Your task to perform on an android device: Open ESPN.com Image 0: 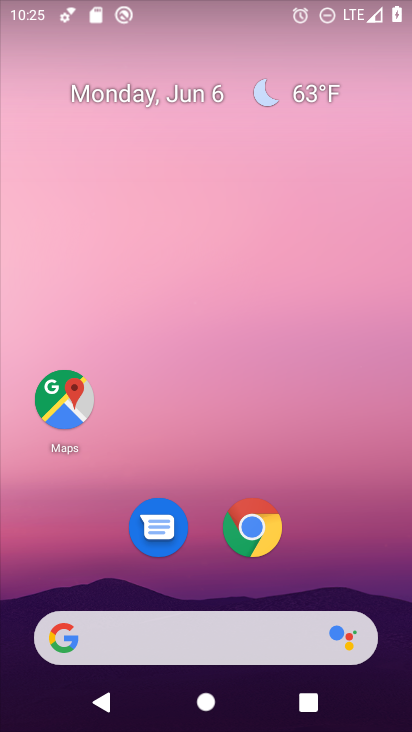
Step 0: drag from (356, 581) to (348, 100)
Your task to perform on an android device: Open ESPN.com Image 1: 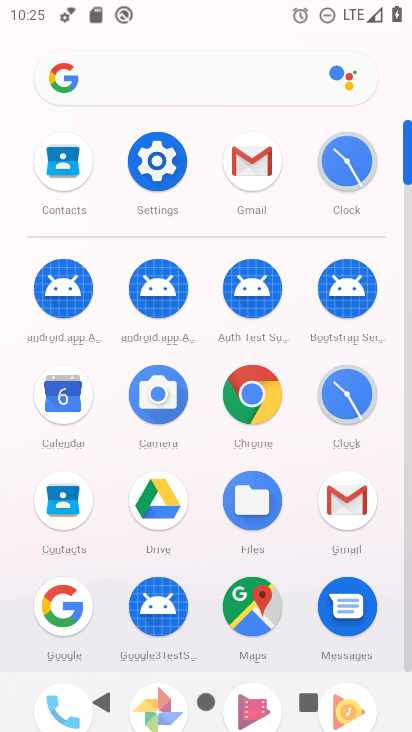
Step 1: click (249, 396)
Your task to perform on an android device: Open ESPN.com Image 2: 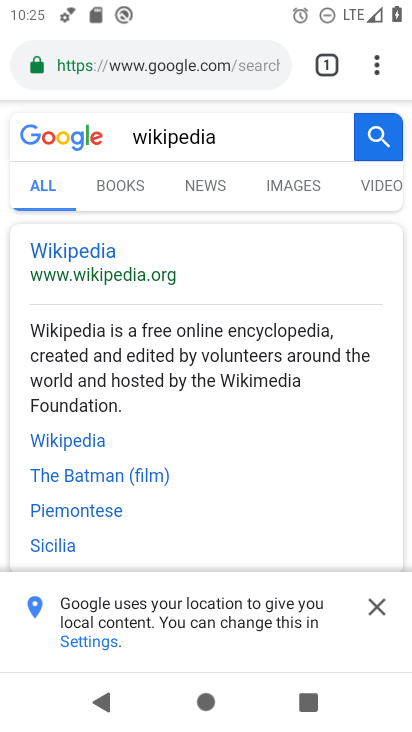
Step 2: click (212, 74)
Your task to perform on an android device: Open ESPN.com Image 3: 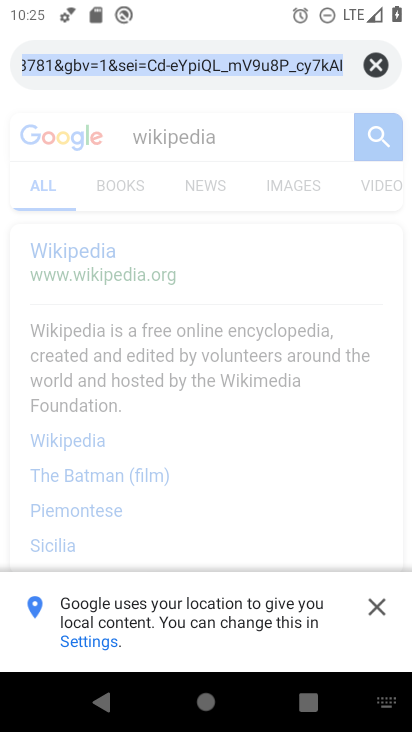
Step 3: click (373, 65)
Your task to perform on an android device: Open ESPN.com Image 4: 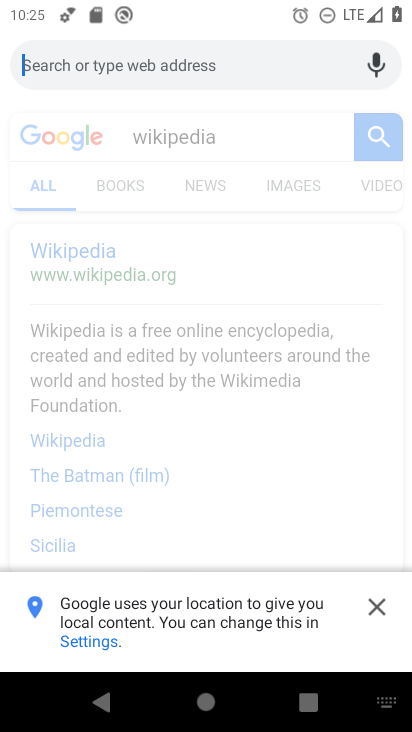
Step 4: type "espn.com"
Your task to perform on an android device: Open ESPN.com Image 5: 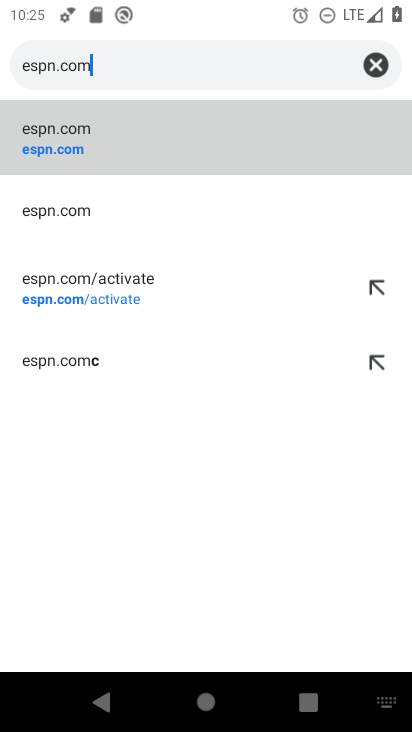
Step 5: click (164, 145)
Your task to perform on an android device: Open ESPN.com Image 6: 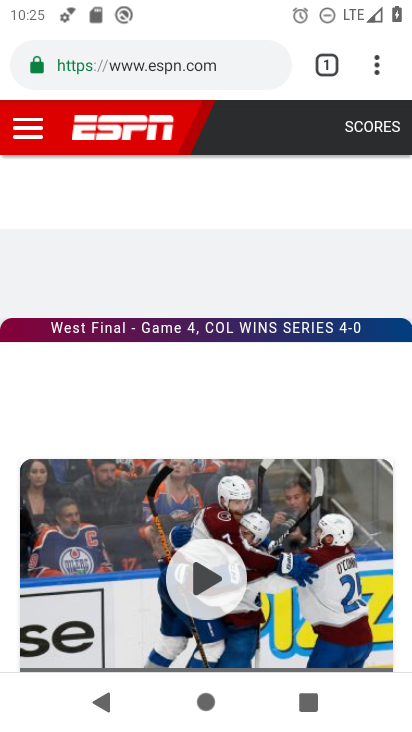
Step 6: task complete